Your task to perform on an android device: Do I have any events tomorrow? Image 0: 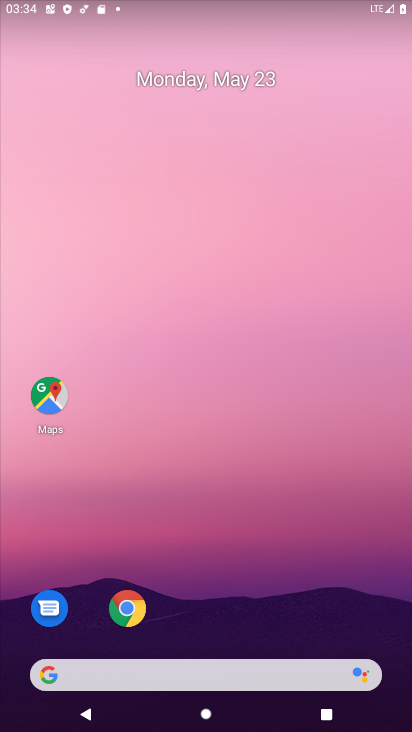
Step 0: drag from (221, 606) to (114, 41)
Your task to perform on an android device: Do I have any events tomorrow? Image 1: 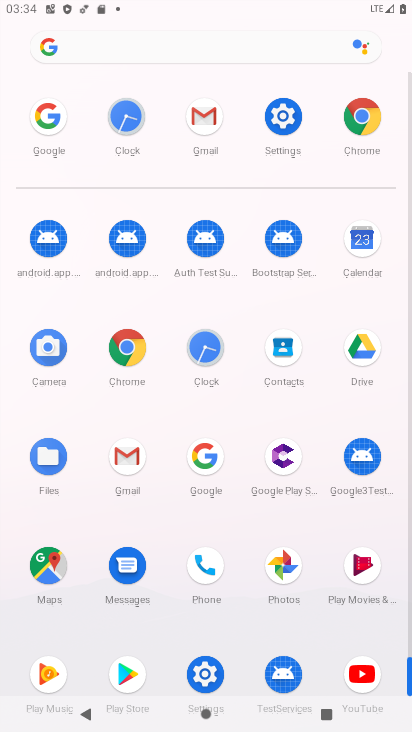
Step 1: click (365, 238)
Your task to perform on an android device: Do I have any events tomorrow? Image 2: 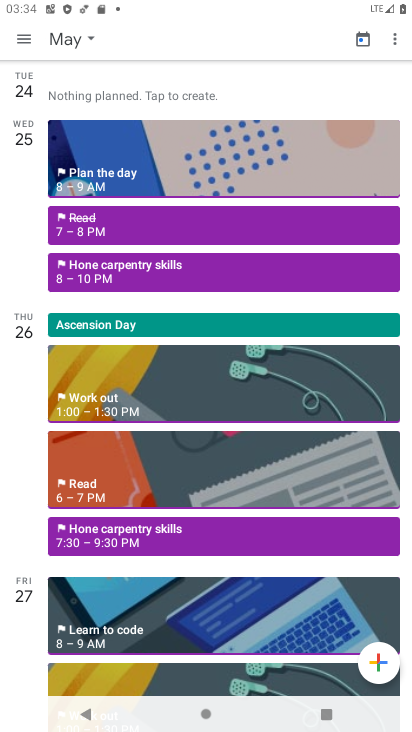
Step 2: click (360, 35)
Your task to perform on an android device: Do I have any events tomorrow? Image 3: 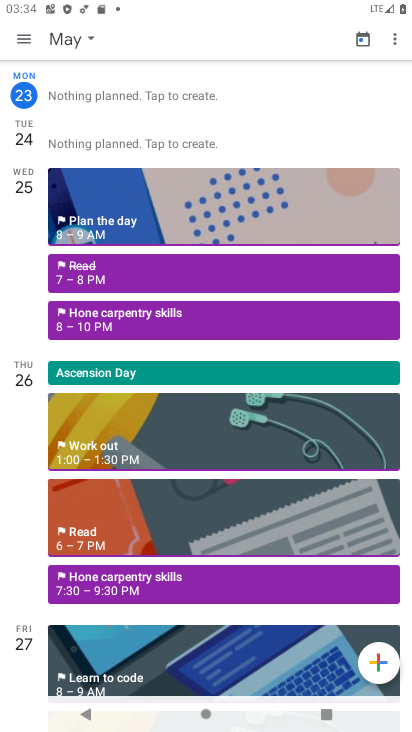
Step 3: click (153, 149)
Your task to perform on an android device: Do I have any events tomorrow? Image 4: 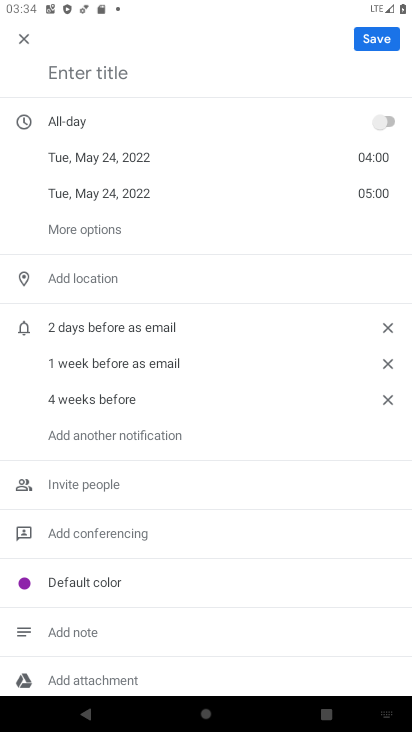
Step 4: task complete